Your task to perform on an android device: Open calendar and show me the third week of next month Image 0: 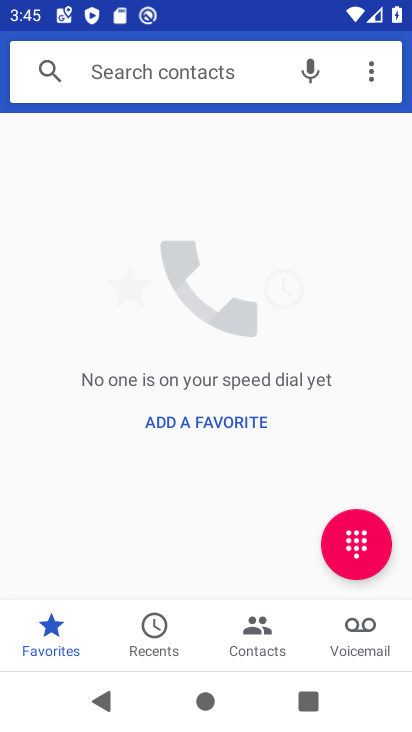
Step 0: press home button
Your task to perform on an android device: Open calendar and show me the third week of next month Image 1: 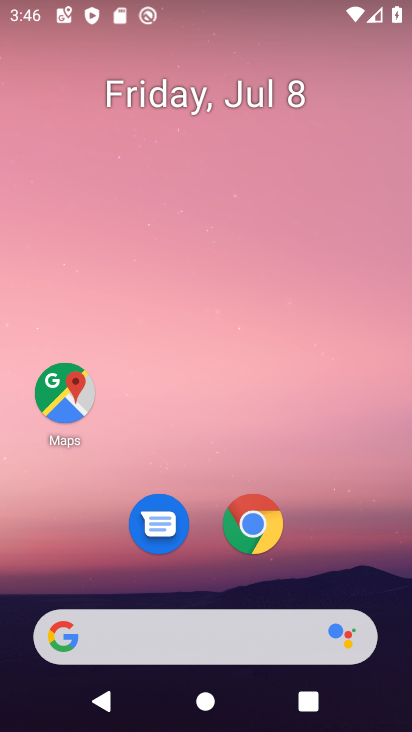
Step 1: drag from (202, 567) to (237, 42)
Your task to perform on an android device: Open calendar and show me the third week of next month Image 2: 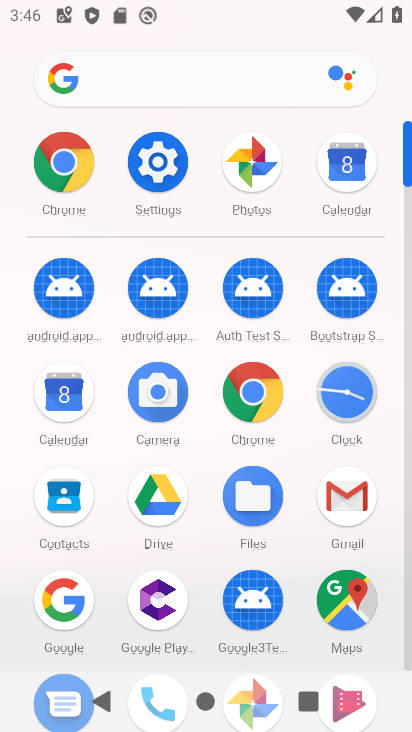
Step 2: click (349, 161)
Your task to perform on an android device: Open calendar and show me the third week of next month Image 3: 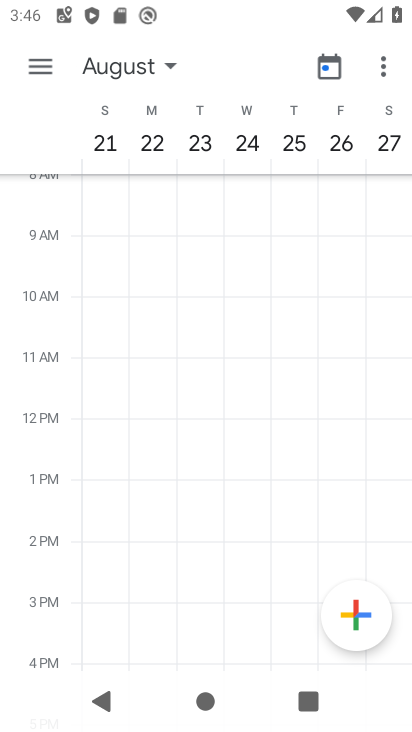
Step 3: task complete